Your task to perform on an android device: turn off translation in the chrome app Image 0: 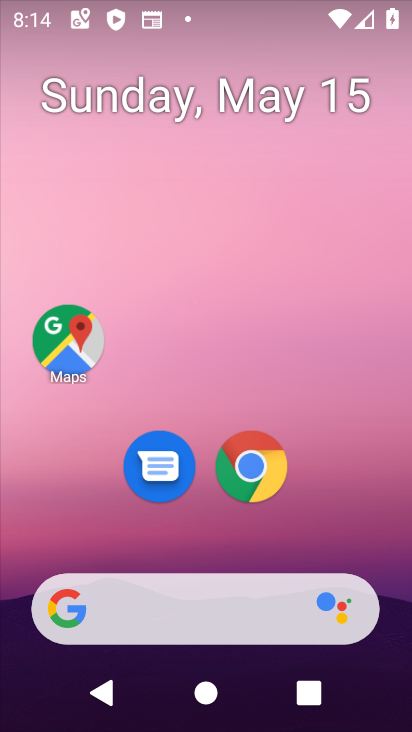
Step 0: click (242, 477)
Your task to perform on an android device: turn off translation in the chrome app Image 1: 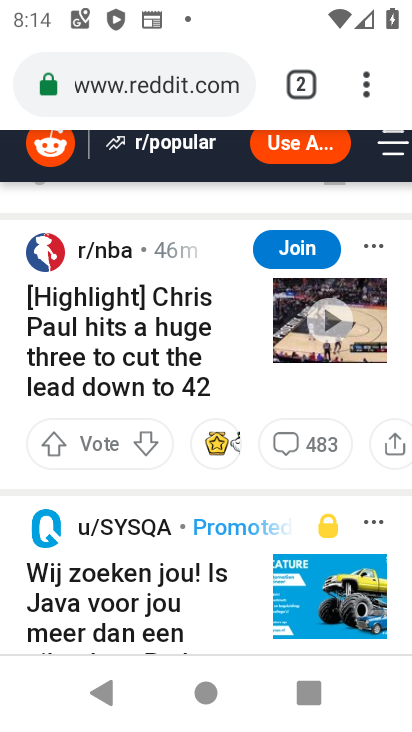
Step 1: click (361, 92)
Your task to perform on an android device: turn off translation in the chrome app Image 2: 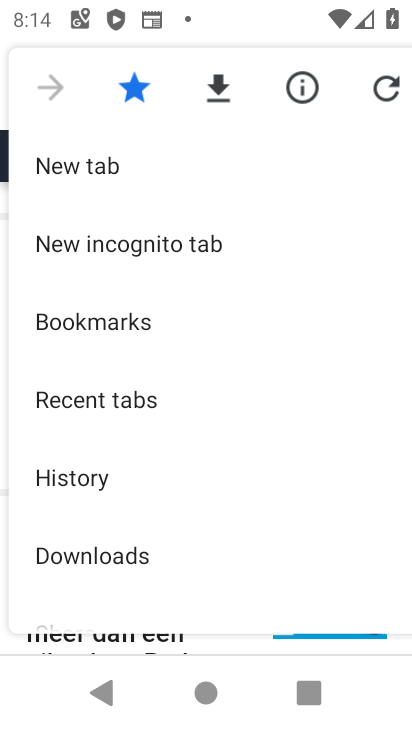
Step 2: drag from (308, 480) to (329, 146)
Your task to perform on an android device: turn off translation in the chrome app Image 3: 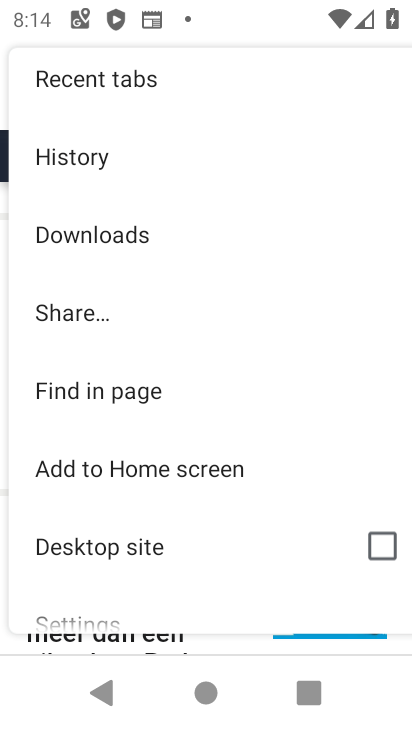
Step 3: drag from (221, 497) to (211, 16)
Your task to perform on an android device: turn off translation in the chrome app Image 4: 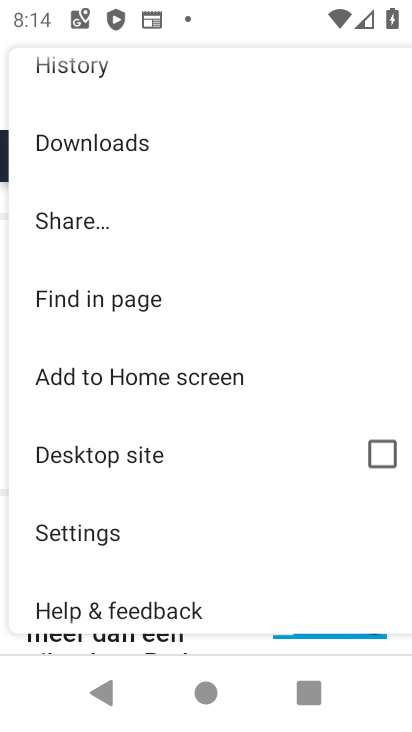
Step 4: click (119, 524)
Your task to perform on an android device: turn off translation in the chrome app Image 5: 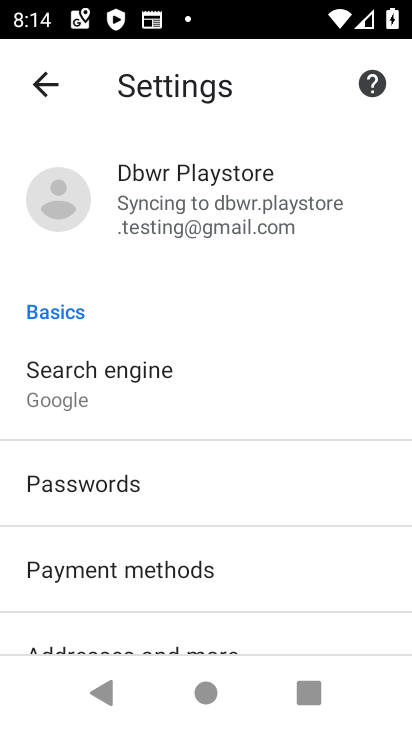
Step 5: drag from (321, 502) to (281, 18)
Your task to perform on an android device: turn off translation in the chrome app Image 6: 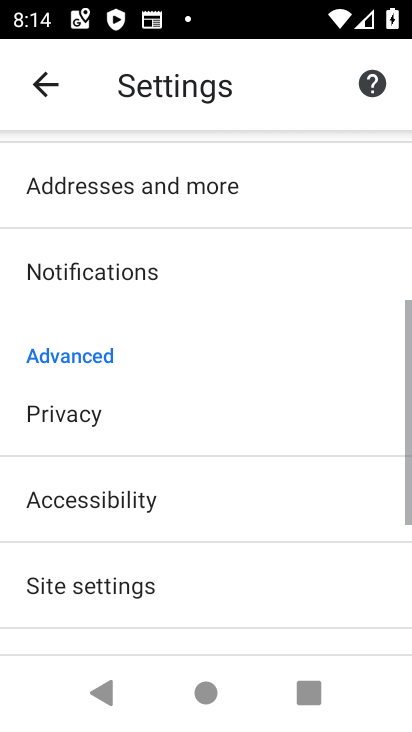
Step 6: drag from (121, 551) to (92, 160)
Your task to perform on an android device: turn off translation in the chrome app Image 7: 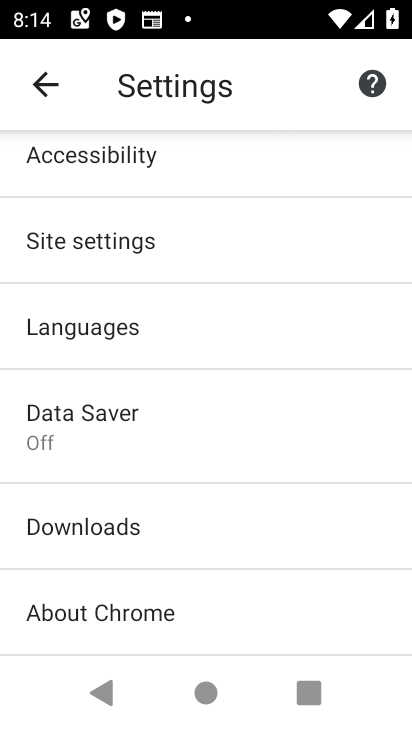
Step 7: click (51, 330)
Your task to perform on an android device: turn off translation in the chrome app Image 8: 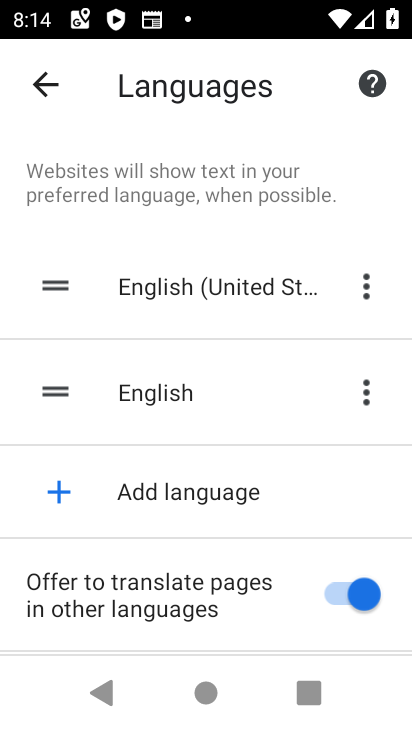
Step 8: click (347, 592)
Your task to perform on an android device: turn off translation in the chrome app Image 9: 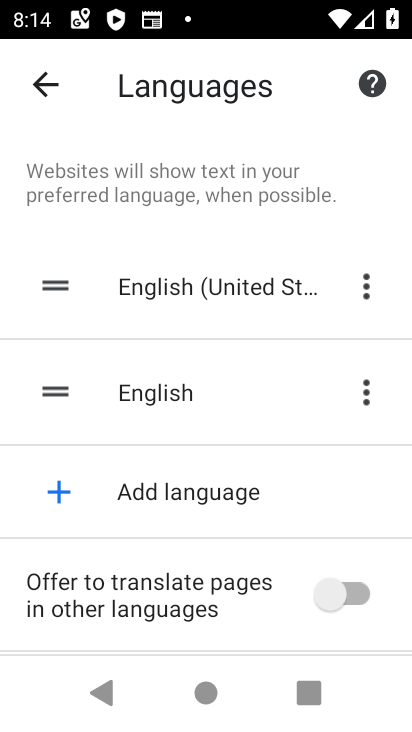
Step 9: task complete